Your task to perform on an android device: add a label to a message in the gmail app Image 0: 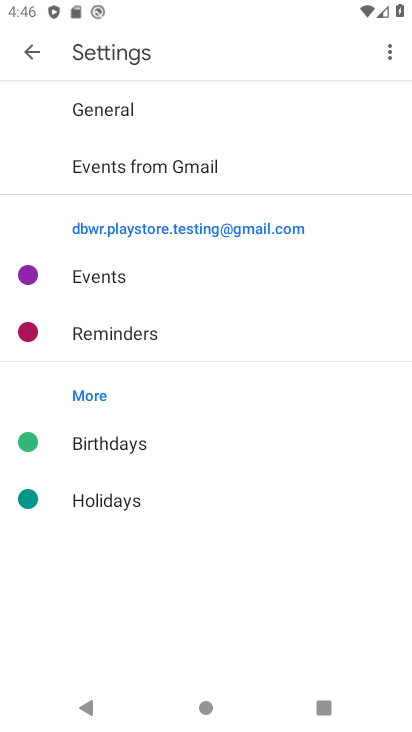
Step 0: click (26, 48)
Your task to perform on an android device: add a label to a message in the gmail app Image 1: 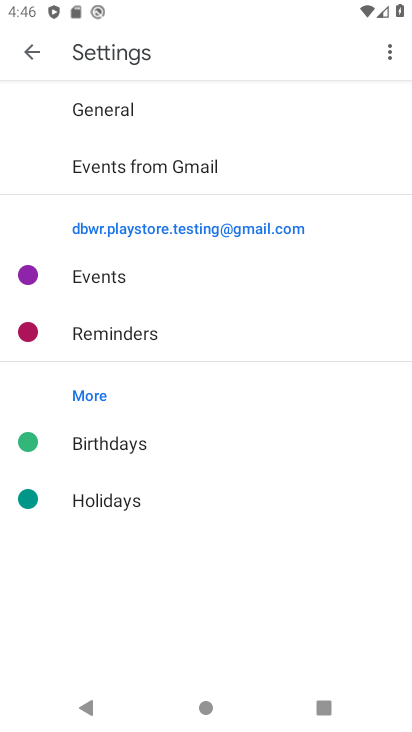
Step 1: click (37, 47)
Your task to perform on an android device: add a label to a message in the gmail app Image 2: 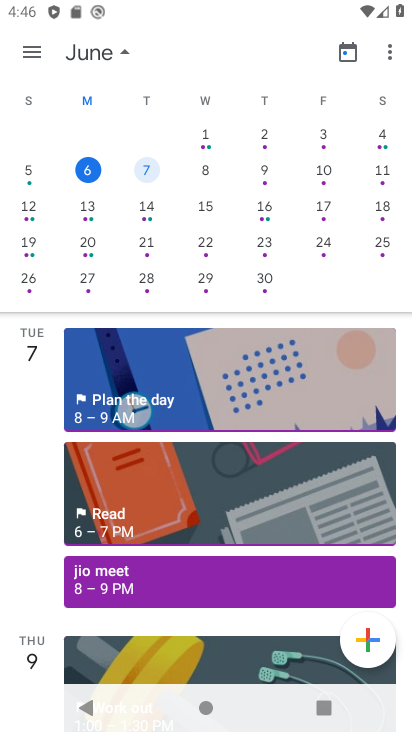
Step 2: press back button
Your task to perform on an android device: add a label to a message in the gmail app Image 3: 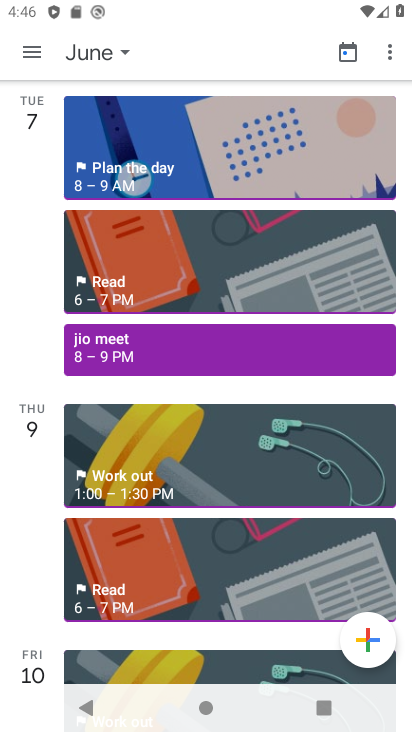
Step 3: press home button
Your task to perform on an android device: add a label to a message in the gmail app Image 4: 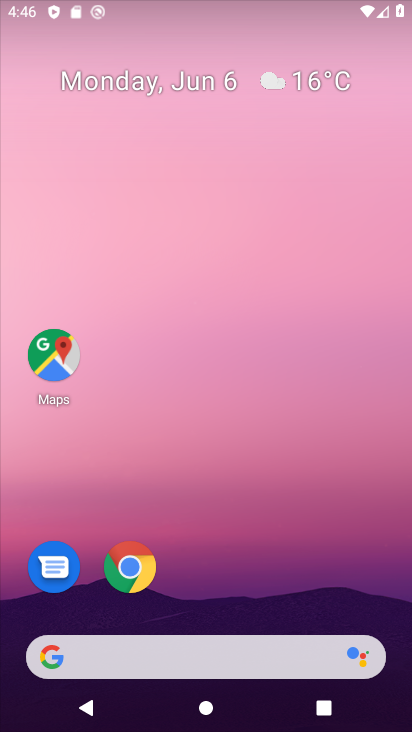
Step 4: drag from (297, 707) to (179, 222)
Your task to perform on an android device: add a label to a message in the gmail app Image 5: 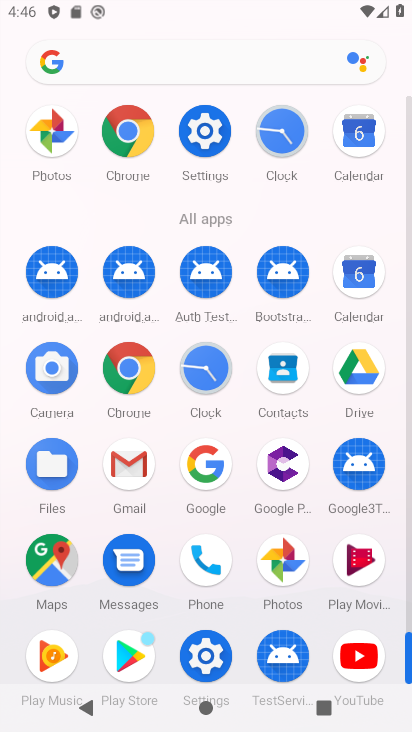
Step 5: click (137, 457)
Your task to perform on an android device: add a label to a message in the gmail app Image 6: 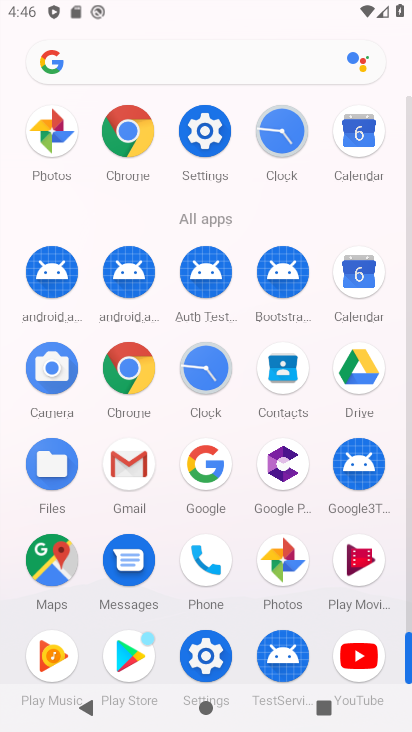
Step 6: click (137, 457)
Your task to perform on an android device: add a label to a message in the gmail app Image 7: 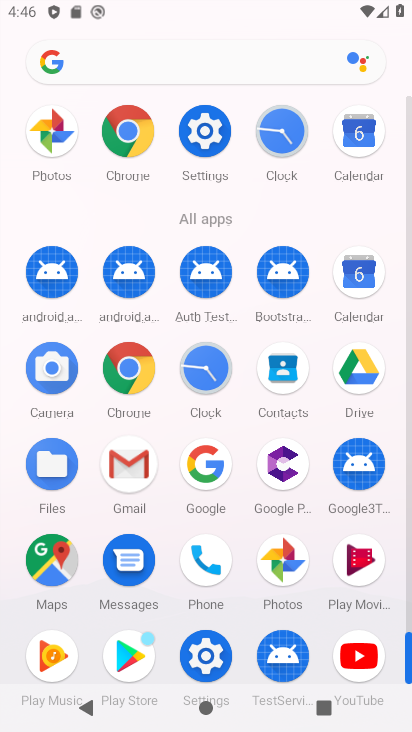
Step 7: click (137, 457)
Your task to perform on an android device: add a label to a message in the gmail app Image 8: 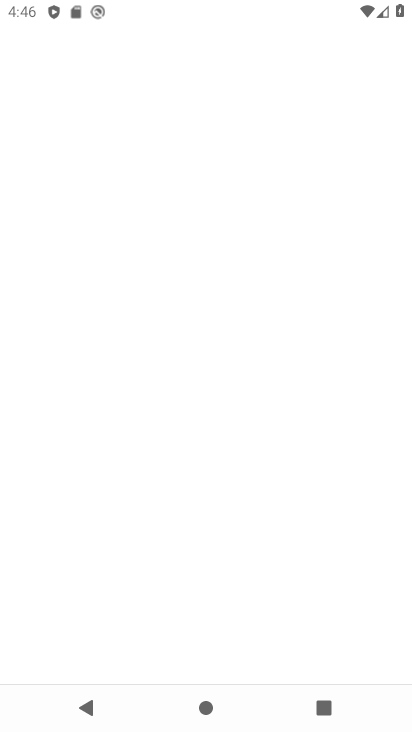
Step 8: click (136, 459)
Your task to perform on an android device: add a label to a message in the gmail app Image 9: 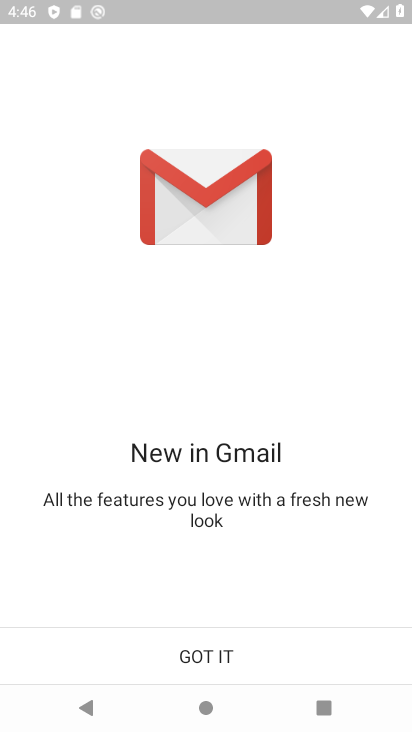
Step 9: press back button
Your task to perform on an android device: add a label to a message in the gmail app Image 10: 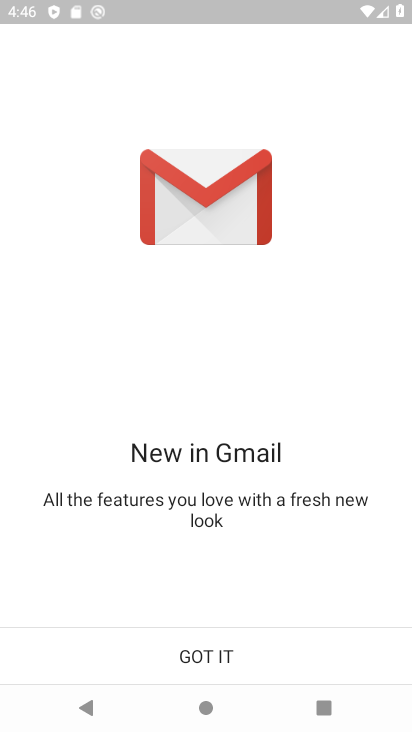
Step 10: click (203, 659)
Your task to perform on an android device: add a label to a message in the gmail app Image 11: 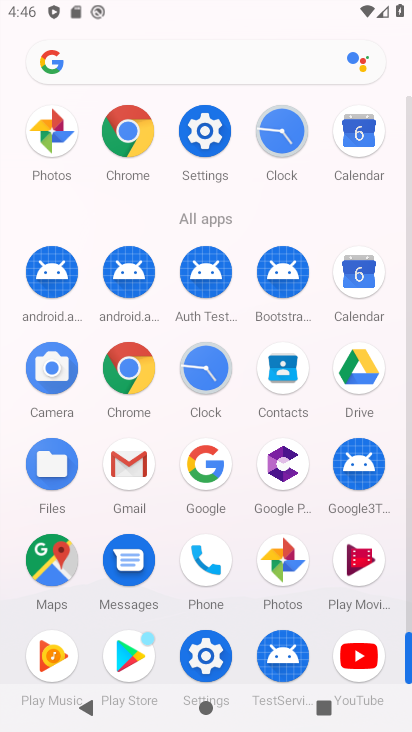
Step 11: click (127, 462)
Your task to perform on an android device: add a label to a message in the gmail app Image 12: 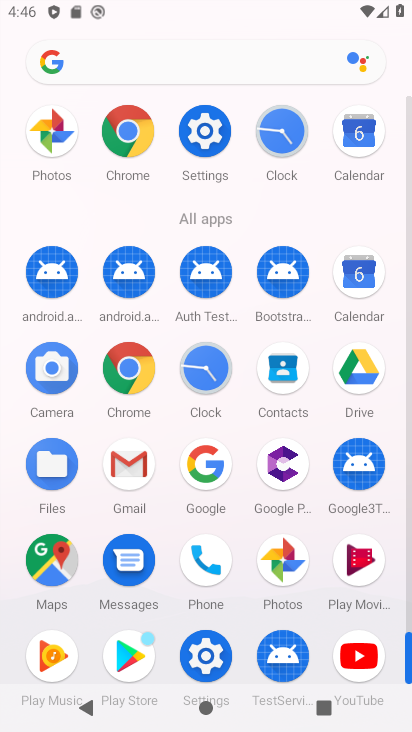
Step 12: click (127, 462)
Your task to perform on an android device: add a label to a message in the gmail app Image 13: 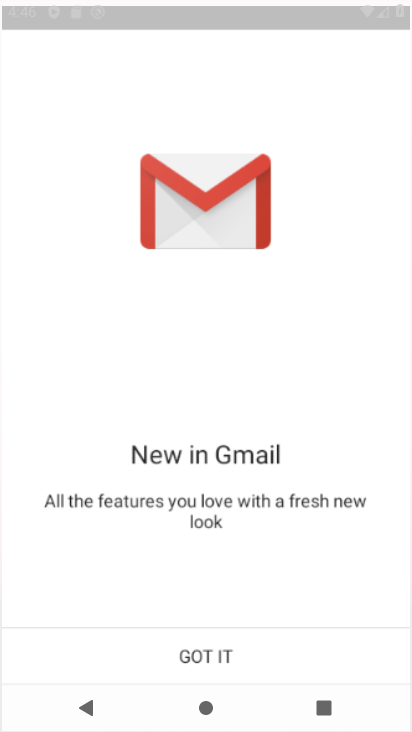
Step 13: click (128, 462)
Your task to perform on an android device: add a label to a message in the gmail app Image 14: 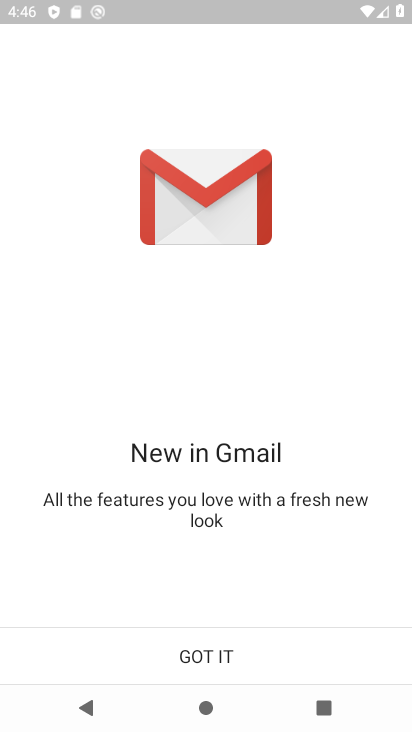
Step 14: click (128, 461)
Your task to perform on an android device: add a label to a message in the gmail app Image 15: 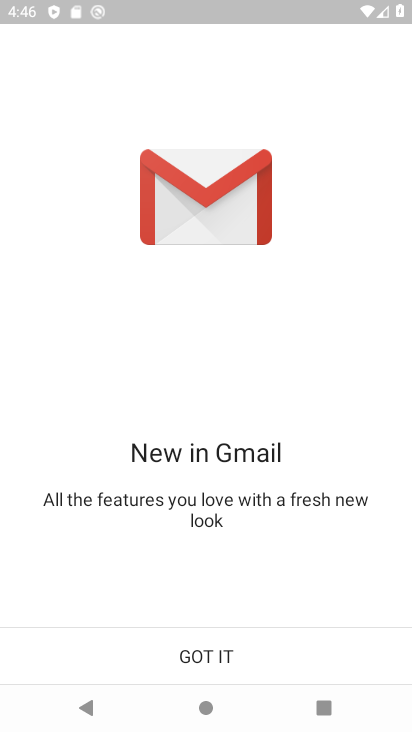
Step 15: click (215, 652)
Your task to perform on an android device: add a label to a message in the gmail app Image 16: 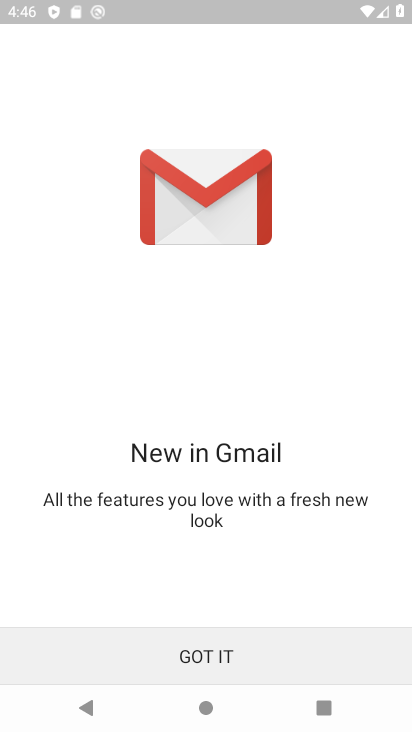
Step 16: click (219, 656)
Your task to perform on an android device: add a label to a message in the gmail app Image 17: 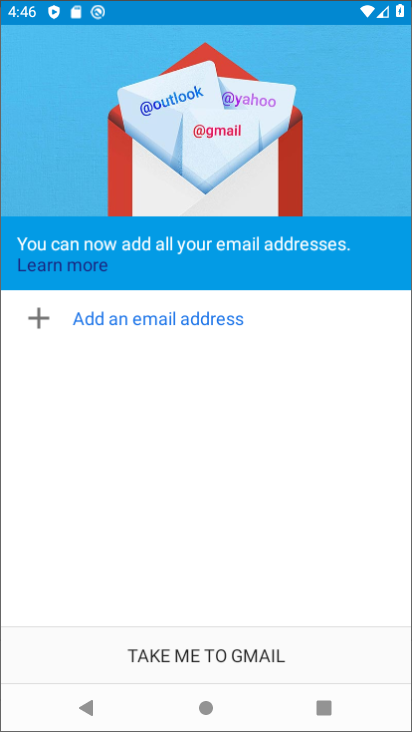
Step 17: click (225, 651)
Your task to perform on an android device: add a label to a message in the gmail app Image 18: 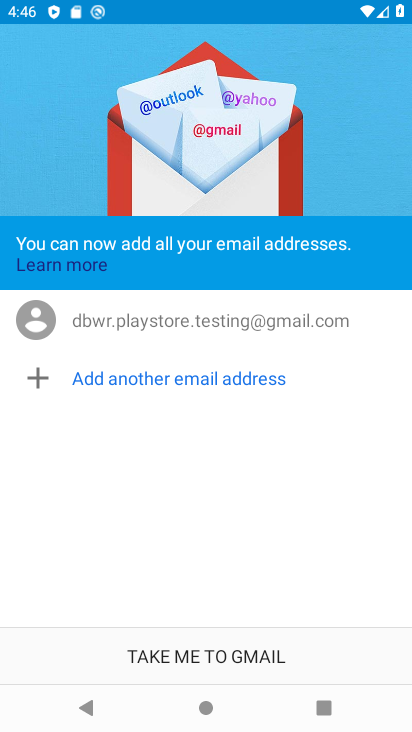
Step 18: click (203, 661)
Your task to perform on an android device: add a label to a message in the gmail app Image 19: 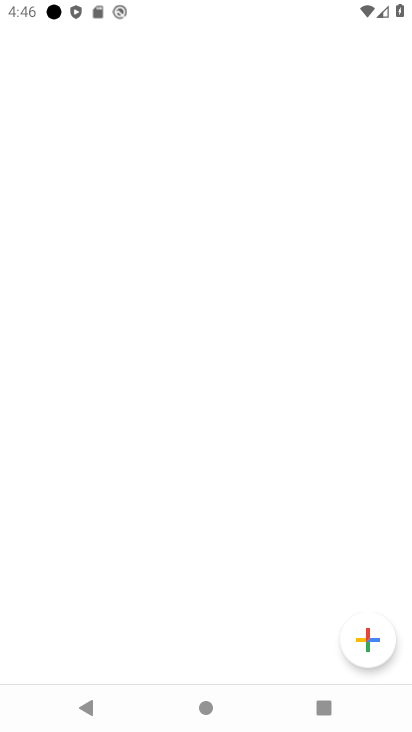
Step 19: click (208, 658)
Your task to perform on an android device: add a label to a message in the gmail app Image 20: 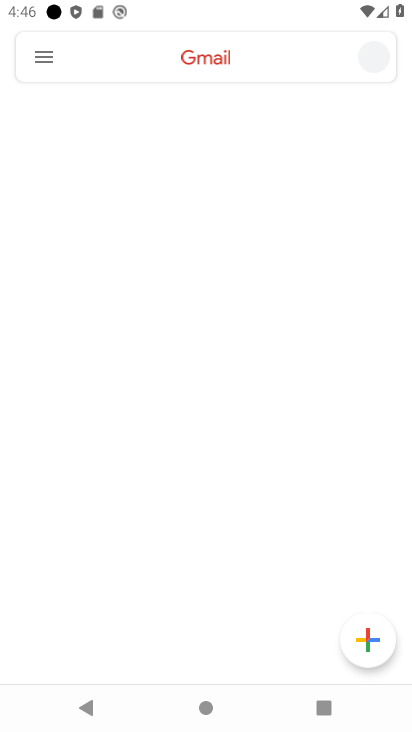
Step 20: click (208, 658)
Your task to perform on an android device: add a label to a message in the gmail app Image 21: 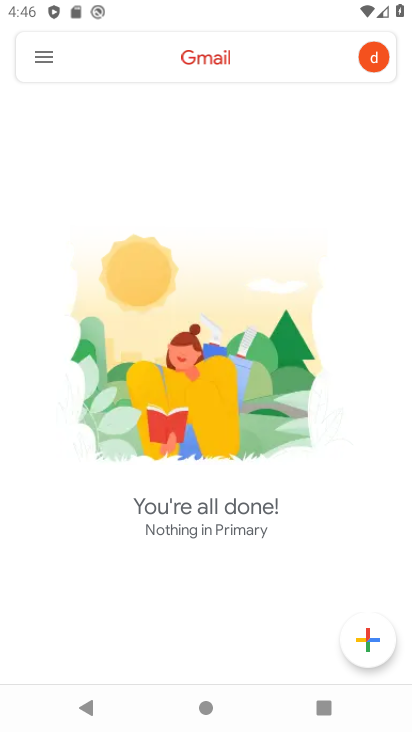
Step 21: click (39, 54)
Your task to perform on an android device: add a label to a message in the gmail app Image 22: 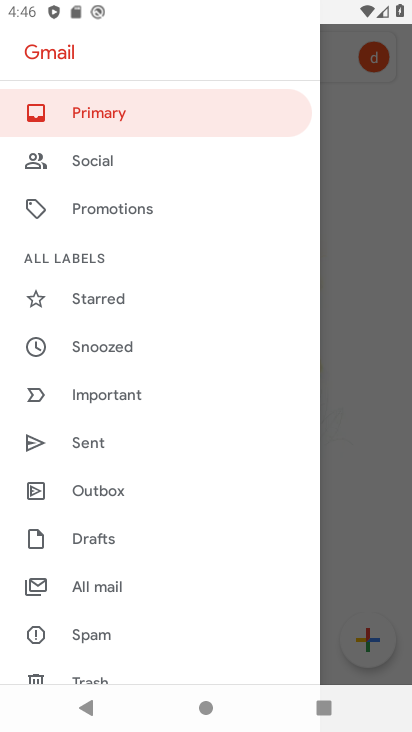
Step 22: click (106, 198)
Your task to perform on an android device: add a label to a message in the gmail app Image 23: 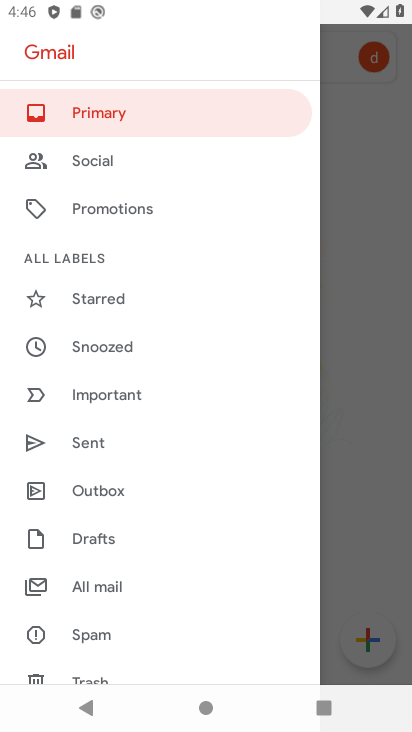
Step 23: drag from (173, 510) to (108, 153)
Your task to perform on an android device: add a label to a message in the gmail app Image 24: 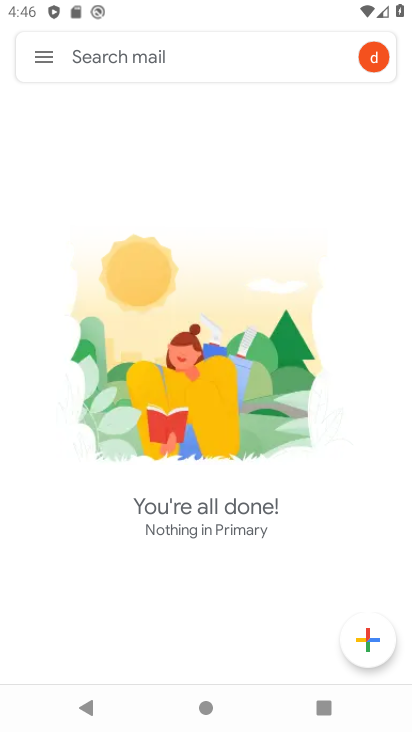
Step 24: drag from (105, 549) to (54, 263)
Your task to perform on an android device: add a label to a message in the gmail app Image 25: 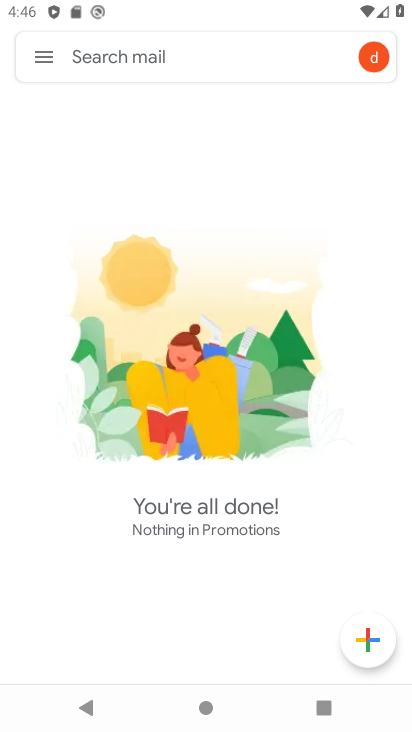
Step 25: click (44, 63)
Your task to perform on an android device: add a label to a message in the gmail app Image 26: 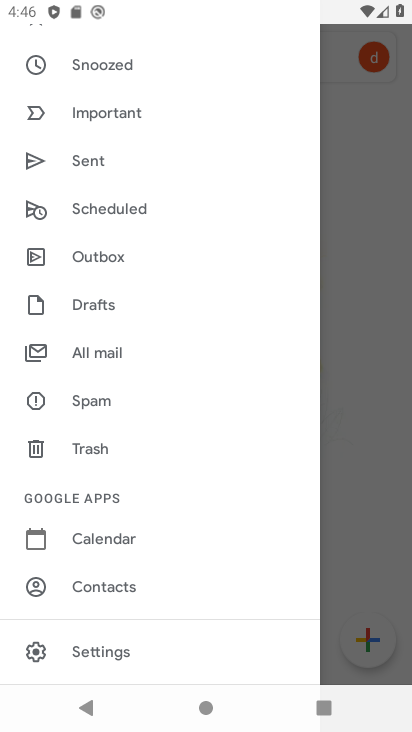
Step 26: click (94, 352)
Your task to perform on an android device: add a label to a message in the gmail app Image 27: 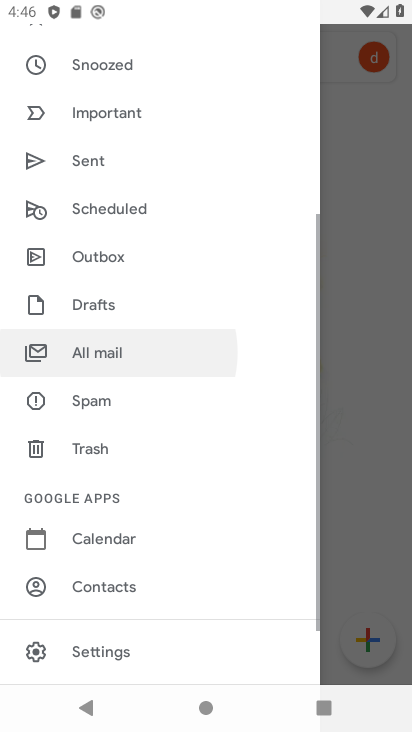
Step 27: click (99, 350)
Your task to perform on an android device: add a label to a message in the gmail app Image 28: 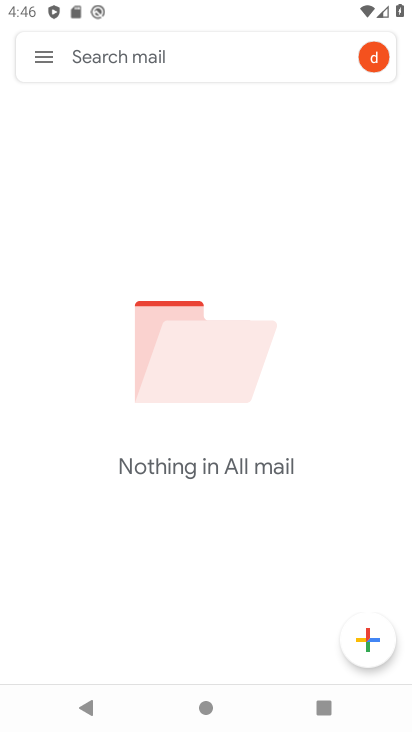
Step 28: task complete